Your task to perform on an android device: turn notification dots off Image 0: 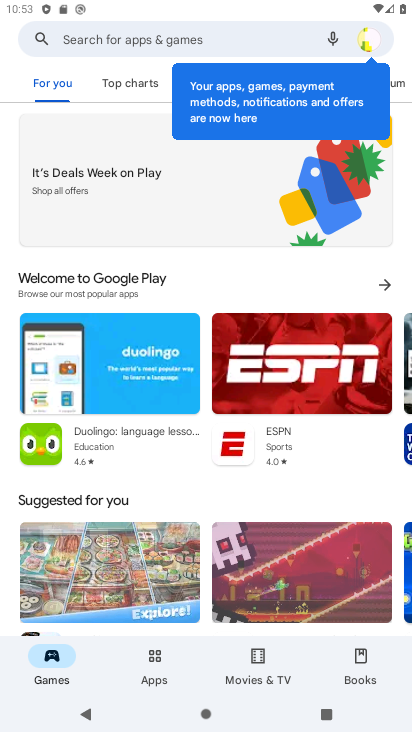
Step 0: press home button
Your task to perform on an android device: turn notification dots off Image 1: 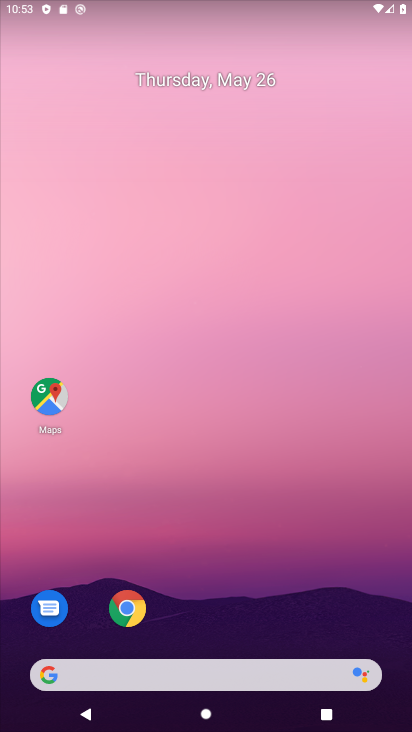
Step 1: drag from (222, 627) to (182, 186)
Your task to perform on an android device: turn notification dots off Image 2: 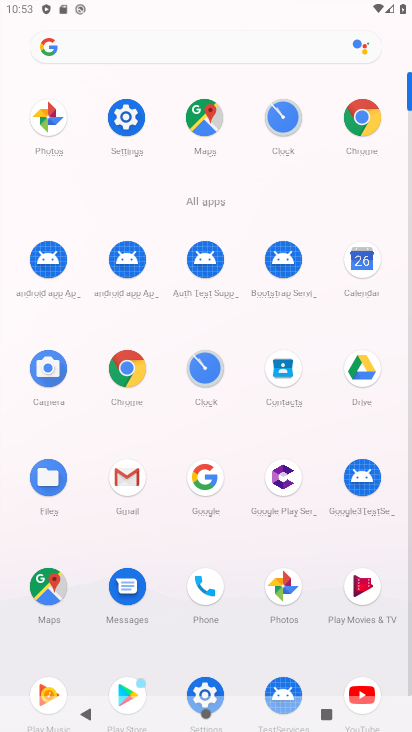
Step 2: click (120, 142)
Your task to perform on an android device: turn notification dots off Image 3: 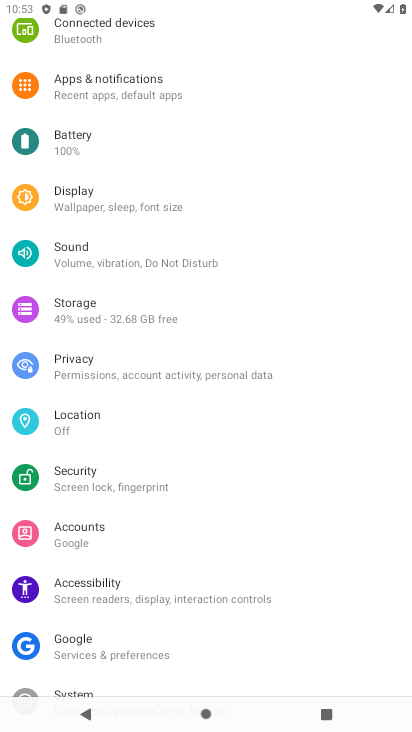
Step 3: click (159, 83)
Your task to perform on an android device: turn notification dots off Image 4: 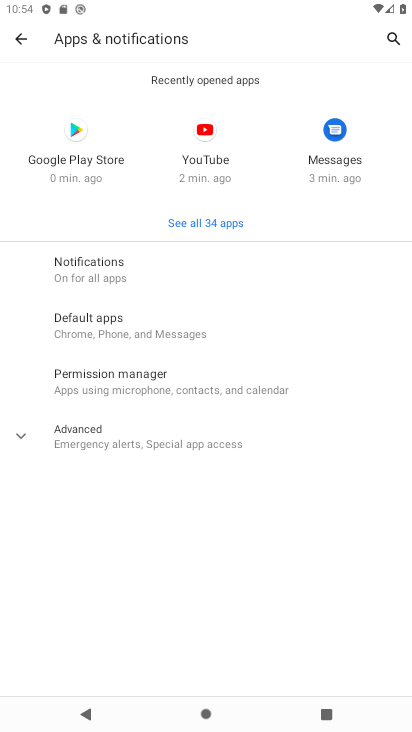
Step 4: click (169, 273)
Your task to perform on an android device: turn notification dots off Image 5: 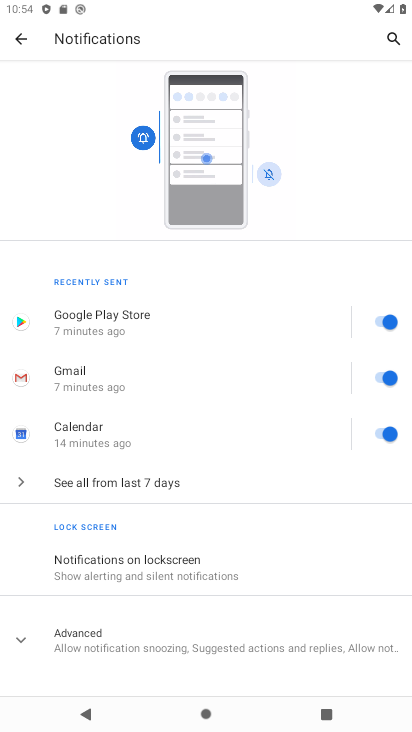
Step 5: click (186, 644)
Your task to perform on an android device: turn notification dots off Image 6: 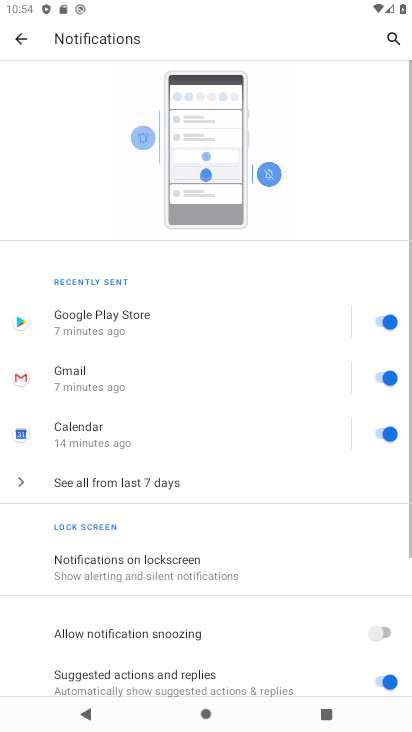
Step 6: drag from (186, 644) to (171, 269)
Your task to perform on an android device: turn notification dots off Image 7: 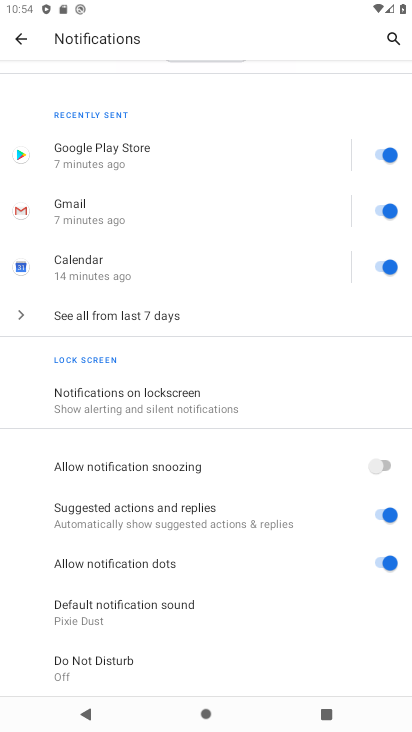
Step 7: click (392, 569)
Your task to perform on an android device: turn notification dots off Image 8: 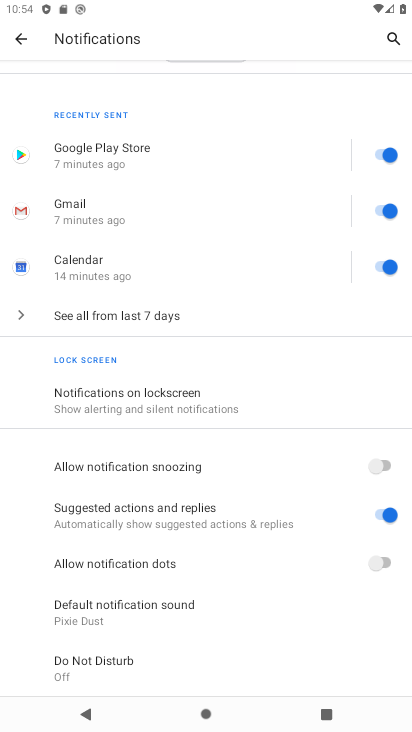
Step 8: task complete